Your task to perform on an android device: allow notifications from all sites in the chrome app Image 0: 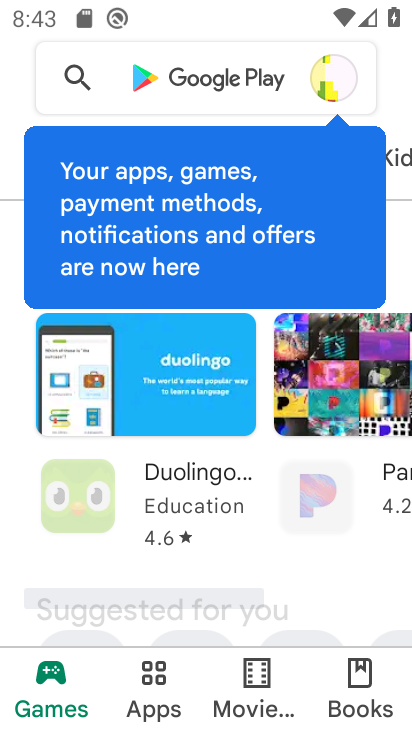
Step 0: press home button
Your task to perform on an android device: allow notifications from all sites in the chrome app Image 1: 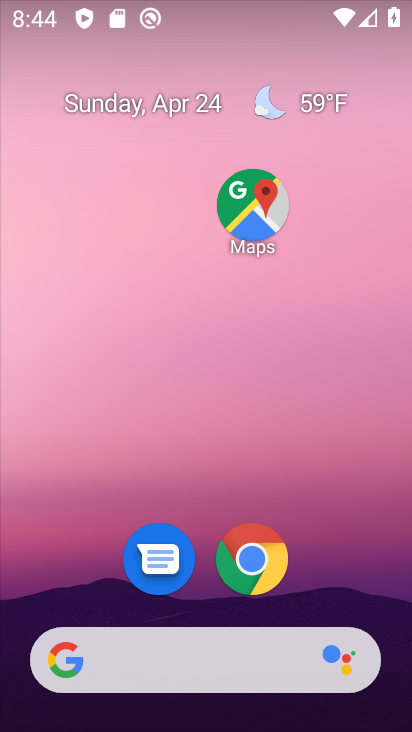
Step 1: click (247, 539)
Your task to perform on an android device: allow notifications from all sites in the chrome app Image 2: 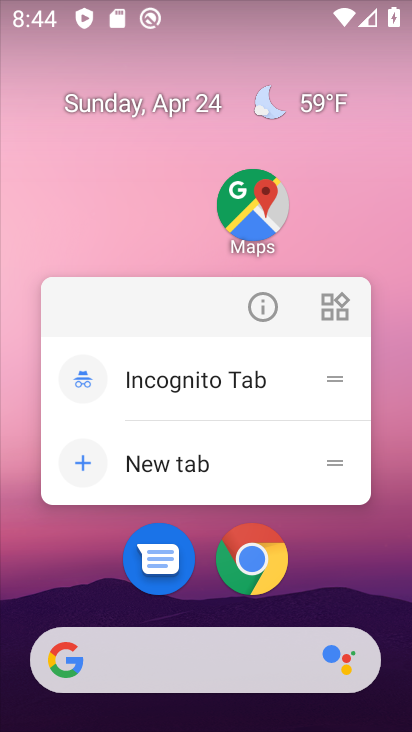
Step 2: click (266, 308)
Your task to perform on an android device: allow notifications from all sites in the chrome app Image 3: 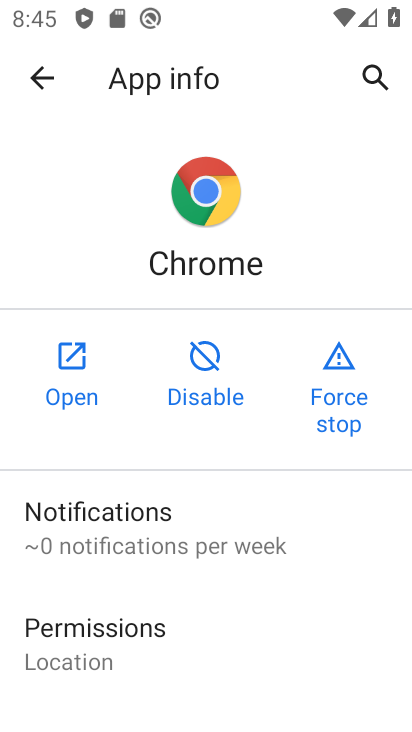
Step 3: click (73, 361)
Your task to perform on an android device: allow notifications from all sites in the chrome app Image 4: 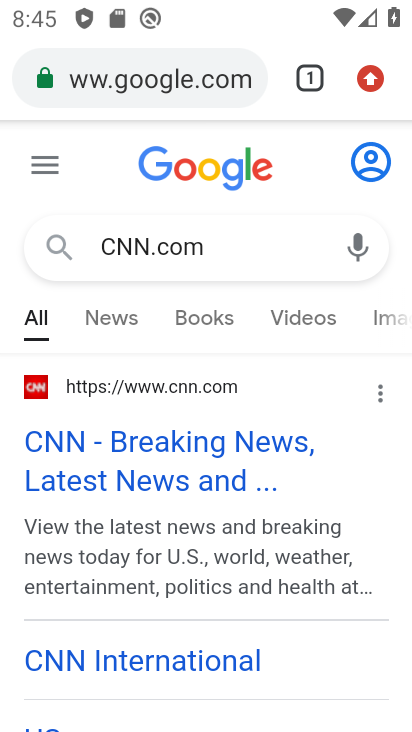
Step 4: drag from (385, 258) to (351, 561)
Your task to perform on an android device: allow notifications from all sites in the chrome app Image 5: 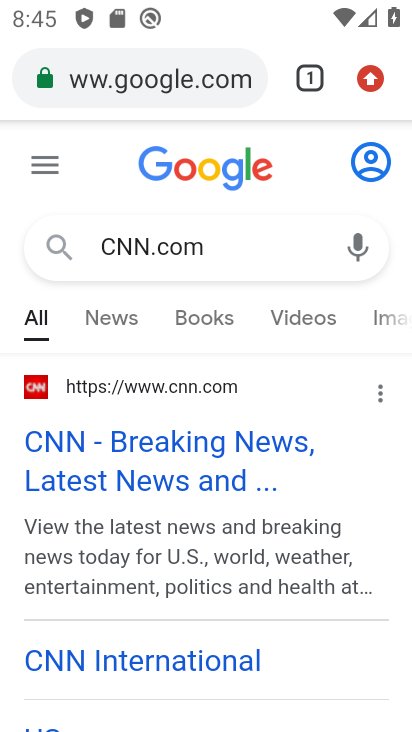
Step 5: click (363, 71)
Your task to perform on an android device: allow notifications from all sites in the chrome app Image 6: 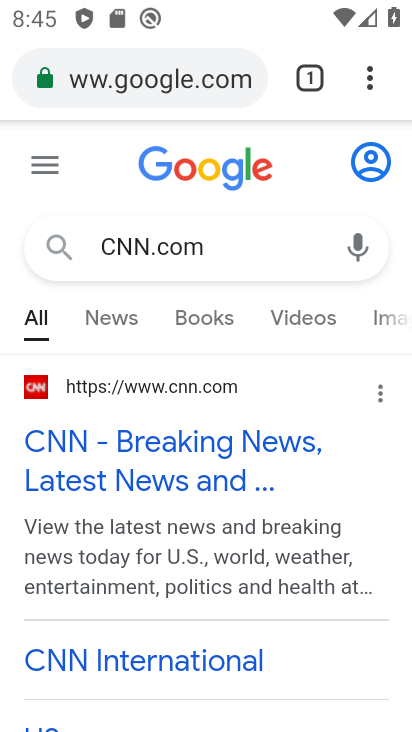
Step 6: click (389, 190)
Your task to perform on an android device: allow notifications from all sites in the chrome app Image 7: 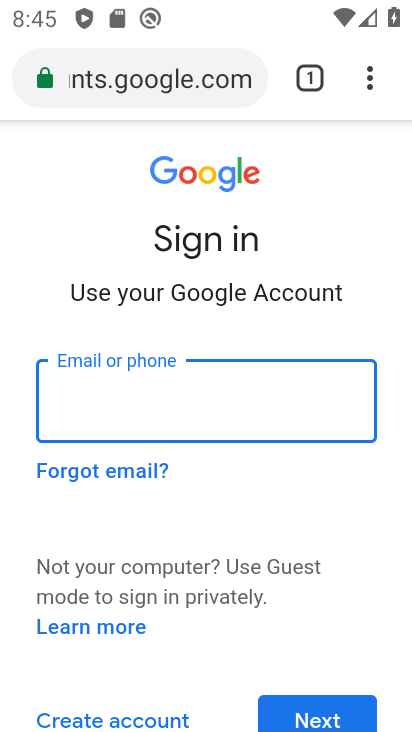
Step 7: drag from (389, 190) to (392, 0)
Your task to perform on an android device: allow notifications from all sites in the chrome app Image 8: 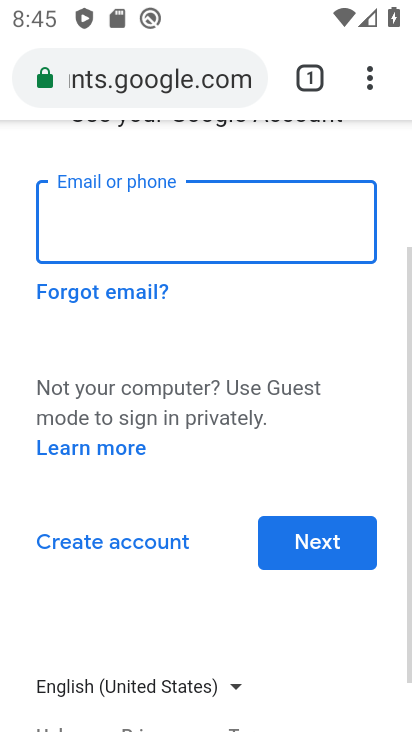
Step 8: drag from (389, 190) to (358, 77)
Your task to perform on an android device: allow notifications from all sites in the chrome app Image 9: 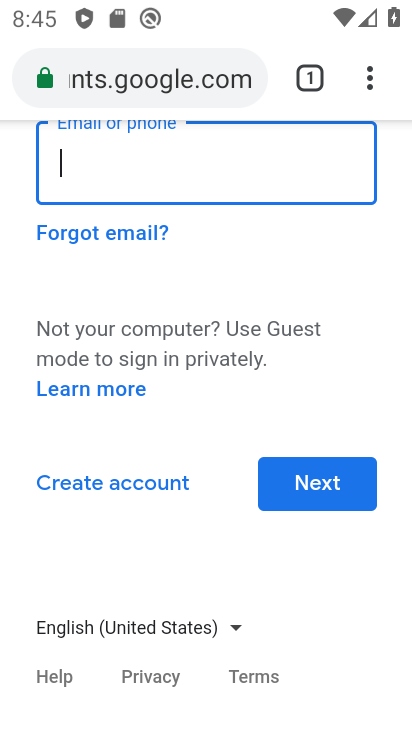
Step 9: drag from (389, 190) to (365, 59)
Your task to perform on an android device: allow notifications from all sites in the chrome app Image 10: 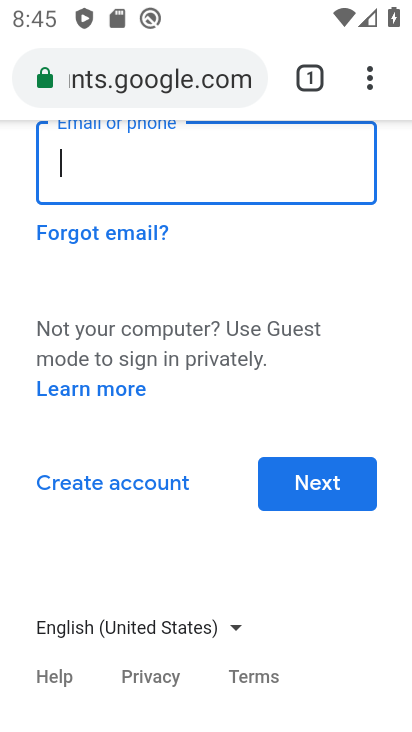
Step 10: drag from (389, 190) to (379, 75)
Your task to perform on an android device: allow notifications from all sites in the chrome app Image 11: 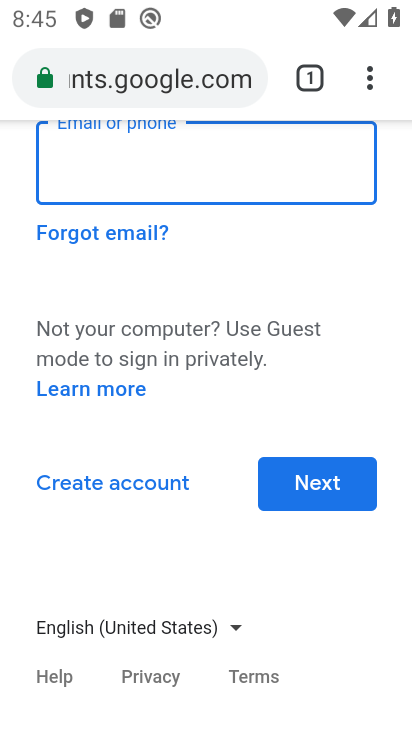
Step 11: click (370, 67)
Your task to perform on an android device: allow notifications from all sites in the chrome app Image 12: 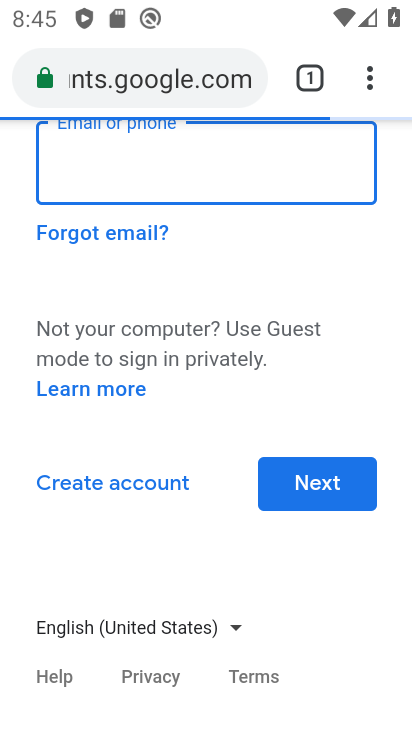
Step 12: click (370, 67)
Your task to perform on an android device: allow notifications from all sites in the chrome app Image 13: 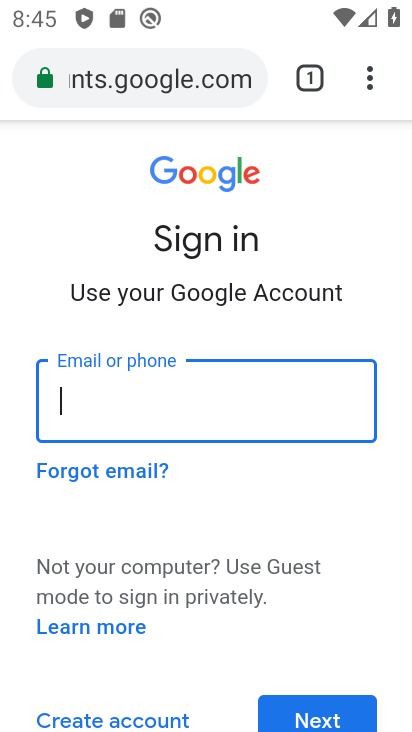
Step 13: click (369, 73)
Your task to perform on an android device: allow notifications from all sites in the chrome app Image 14: 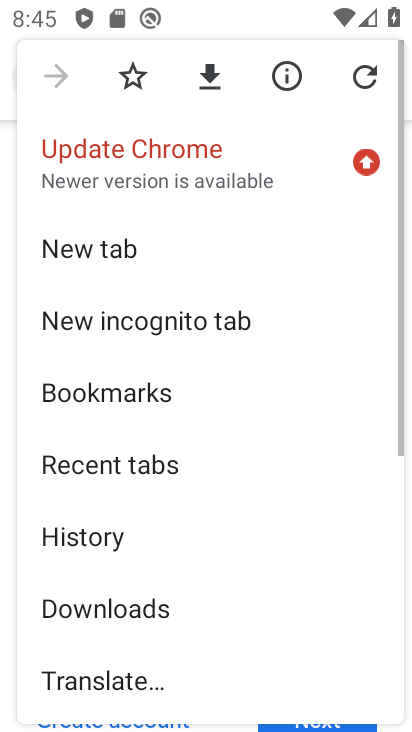
Step 14: click (370, 67)
Your task to perform on an android device: allow notifications from all sites in the chrome app Image 15: 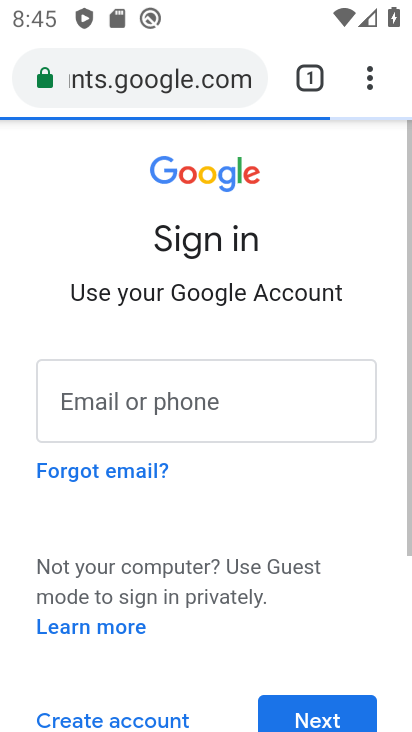
Step 15: click (368, 73)
Your task to perform on an android device: allow notifications from all sites in the chrome app Image 16: 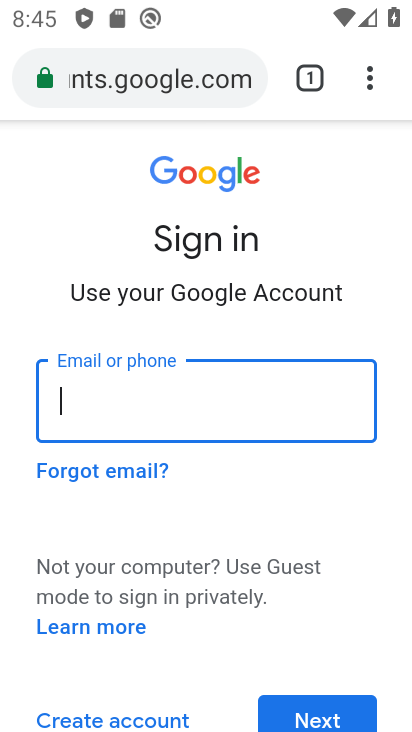
Step 16: click (365, 76)
Your task to perform on an android device: allow notifications from all sites in the chrome app Image 17: 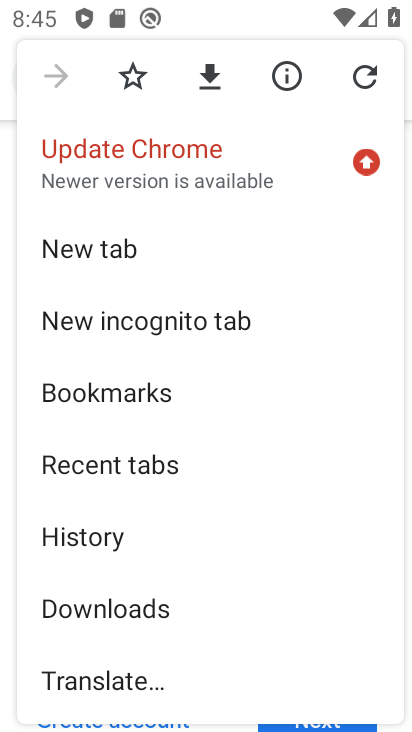
Step 17: drag from (84, 702) to (160, 239)
Your task to perform on an android device: allow notifications from all sites in the chrome app Image 18: 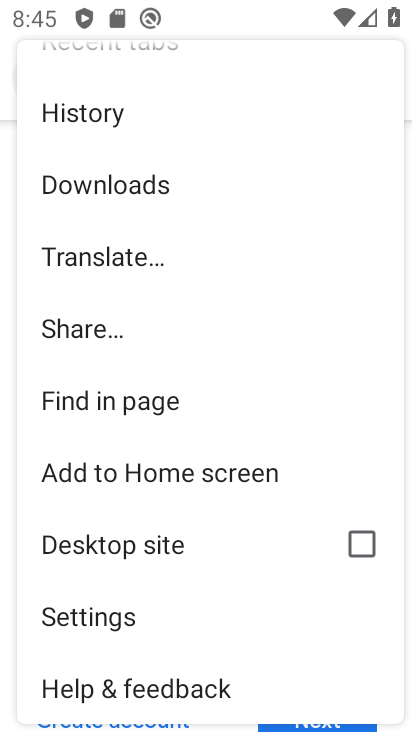
Step 18: click (143, 629)
Your task to perform on an android device: allow notifications from all sites in the chrome app Image 19: 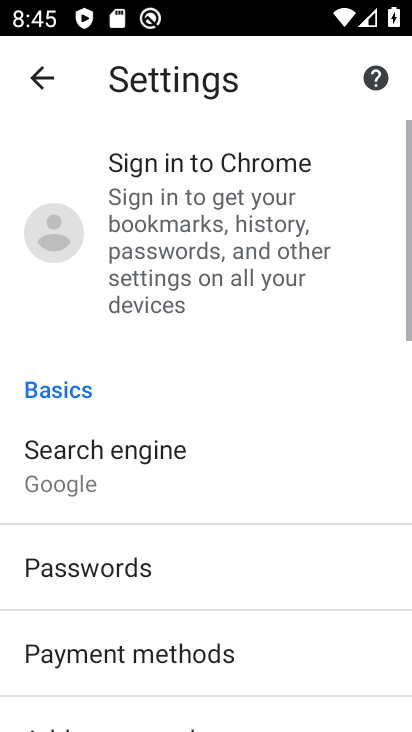
Step 19: drag from (134, 674) to (214, 341)
Your task to perform on an android device: allow notifications from all sites in the chrome app Image 20: 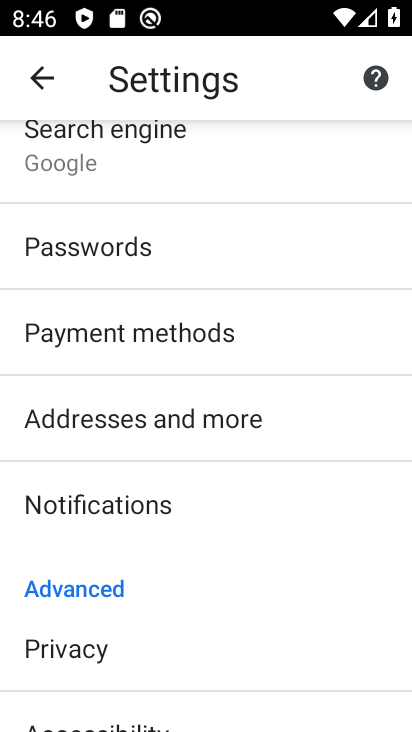
Step 20: drag from (87, 677) to (152, 404)
Your task to perform on an android device: allow notifications from all sites in the chrome app Image 21: 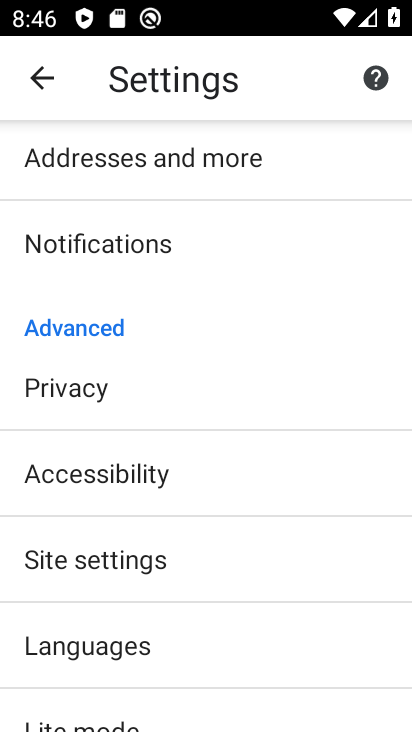
Step 21: click (132, 565)
Your task to perform on an android device: allow notifications from all sites in the chrome app Image 22: 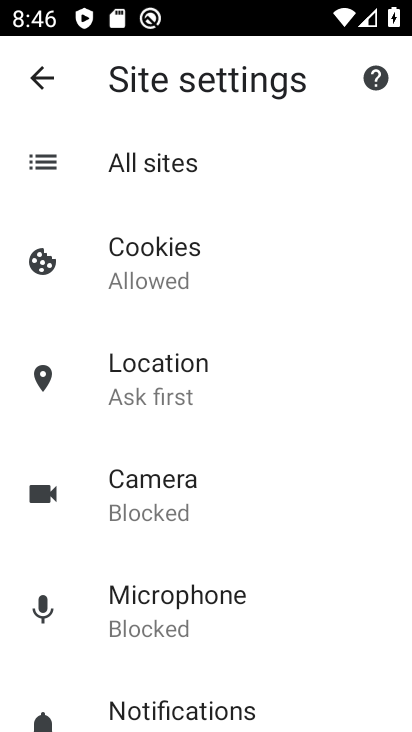
Step 22: click (107, 706)
Your task to perform on an android device: allow notifications from all sites in the chrome app Image 23: 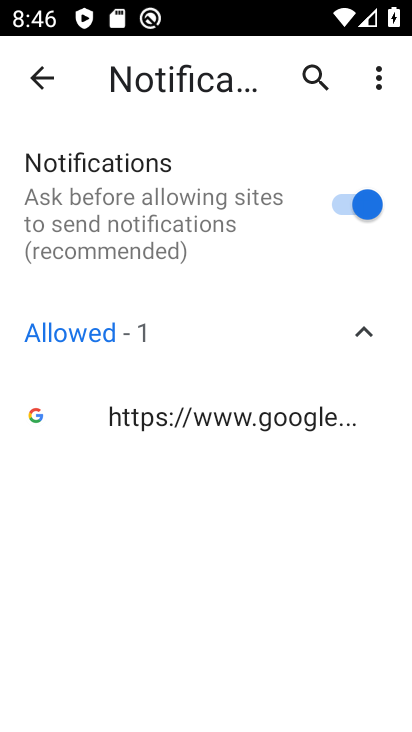
Step 23: click (255, 324)
Your task to perform on an android device: allow notifications from all sites in the chrome app Image 24: 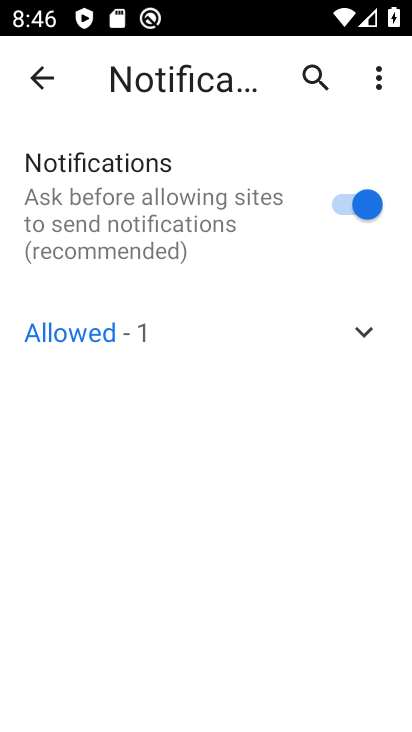
Step 24: task complete